Your task to perform on an android device: turn on airplane mode Image 0: 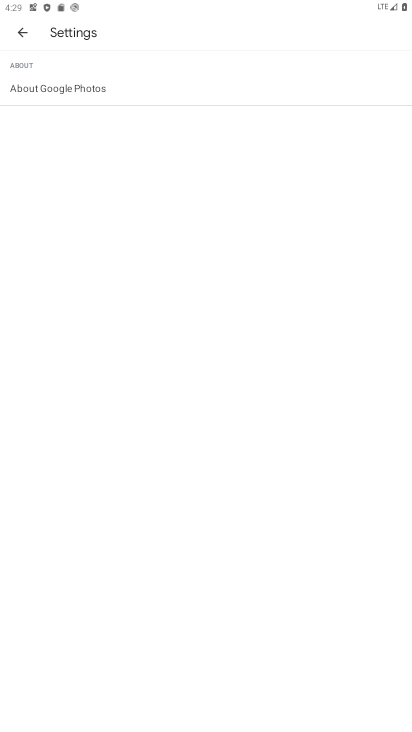
Step 0: drag from (280, 4) to (291, 354)
Your task to perform on an android device: turn on airplane mode Image 1: 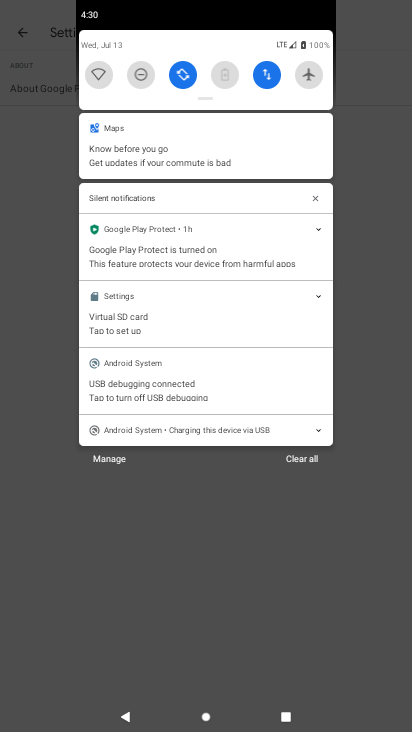
Step 1: click (310, 68)
Your task to perform on an android device: turn on airplane mode Image 2: 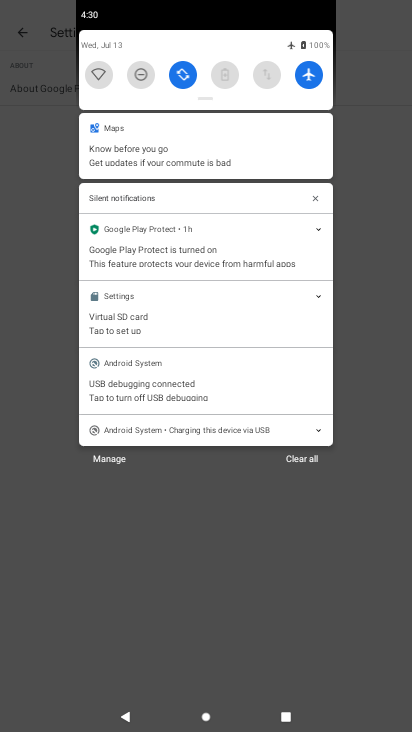
Step 2: task complete